Your task to perform on an android device: change the clock display to show seconds Image 0: 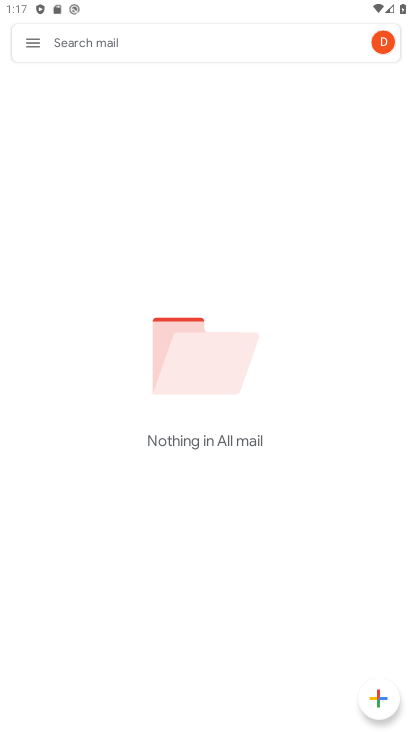
Step 0: press home button
Your task to perform on an android device: change the clock display to show seconds Image 1: 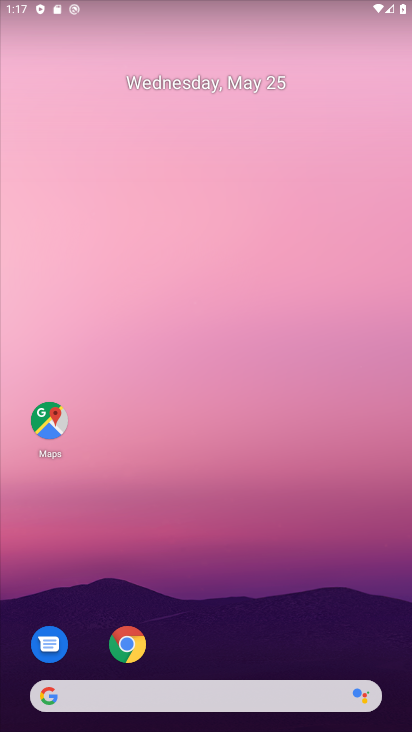
Step 1: drag from (216, 582) to (130, 8)
Your task to perform on an android device: change the clock display to show seconds Image 2: 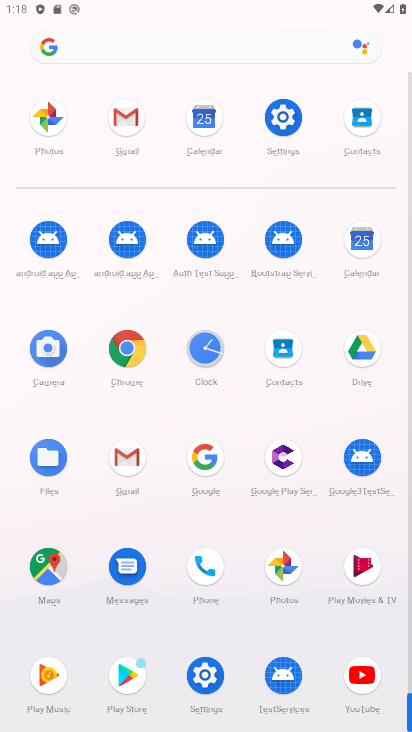
Step 2: click (190, 353)
Your task to perform on an android device: change the clock display to show seconds Image 3: 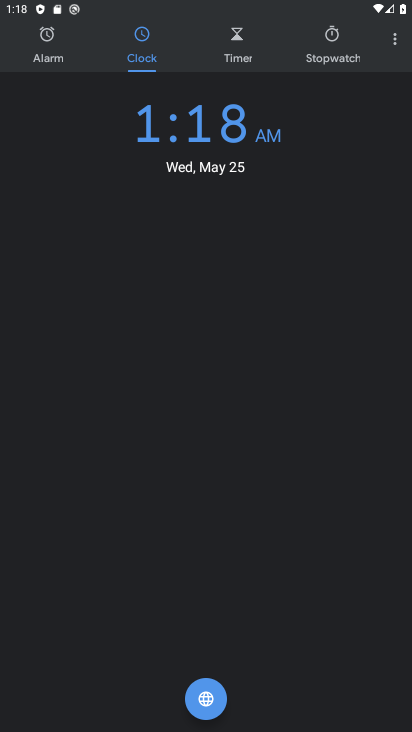
Step 3: click (392, 48)
Your task to perform on an android device: change the clock display to show seconds Image 4: 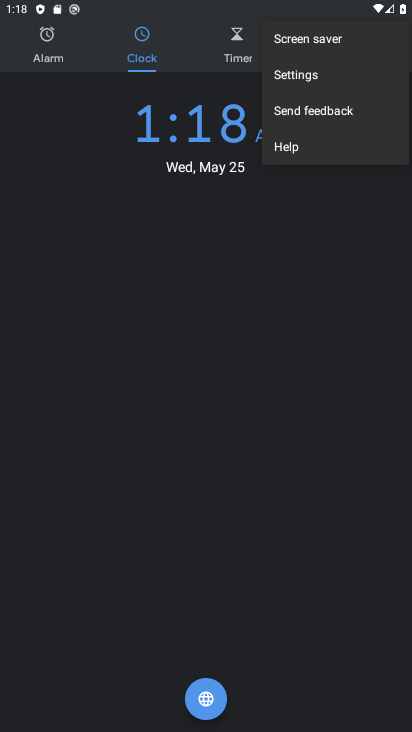
Step 4: click (317, 77)
Your task to perform on an android device: change the clock display to show seconds Image 5: 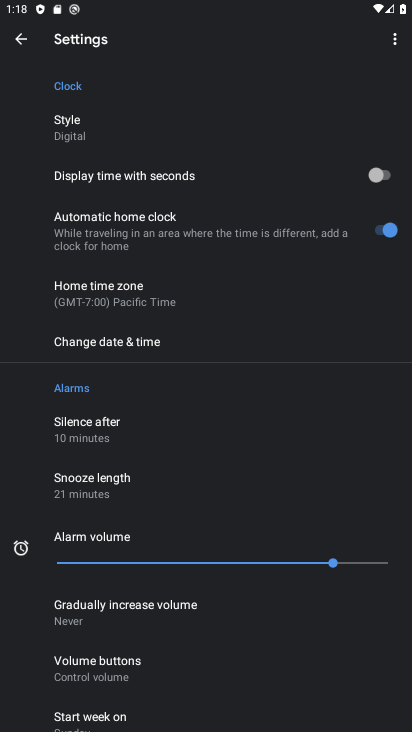
Step 5: click (397, 174)
Your task to perform on an android device: change the clock display to show seconds Image 6: 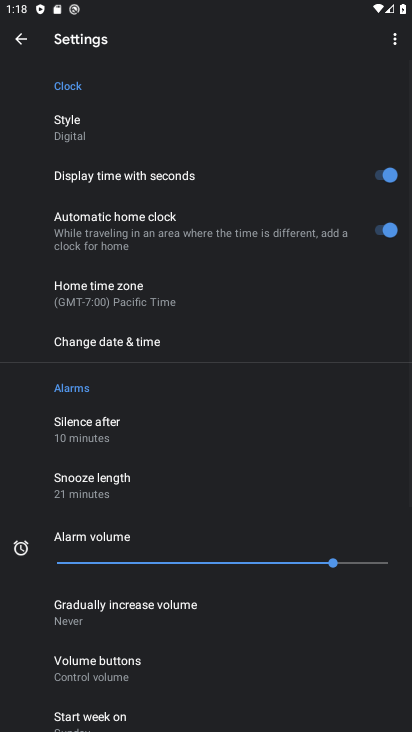
Step 6: task complete